Your task to perform on an android device: Toggle the flashlight Image 0: 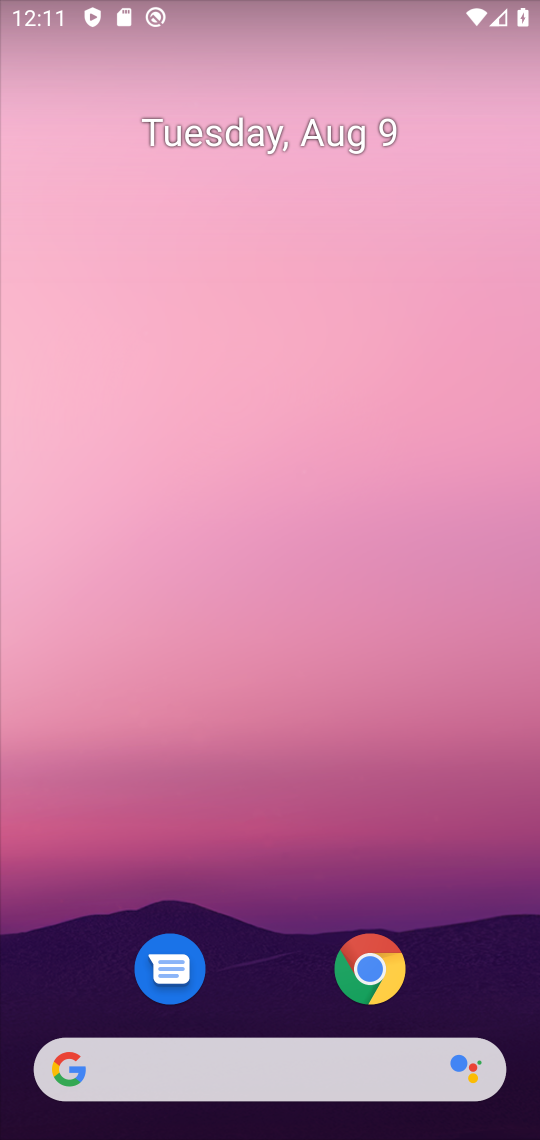
Step 0: drag from (272, 818) to (373, 236)
Your task to perform on an android device: Toggle the flashlight Image 1: 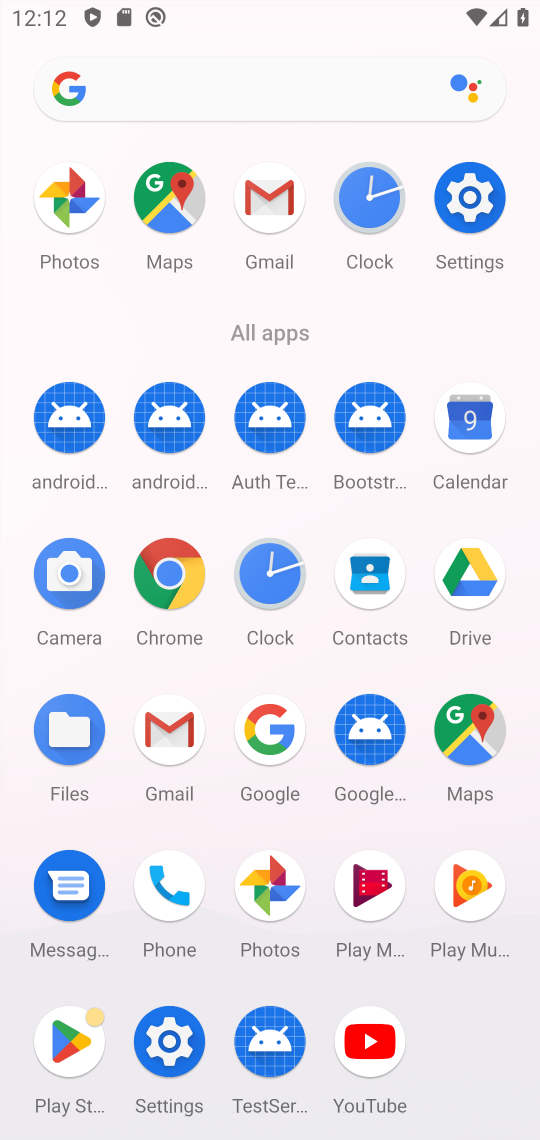
Step 1: click (171, 1016)
Your task to perform on an android device: Toggle the flashlight Image 2: 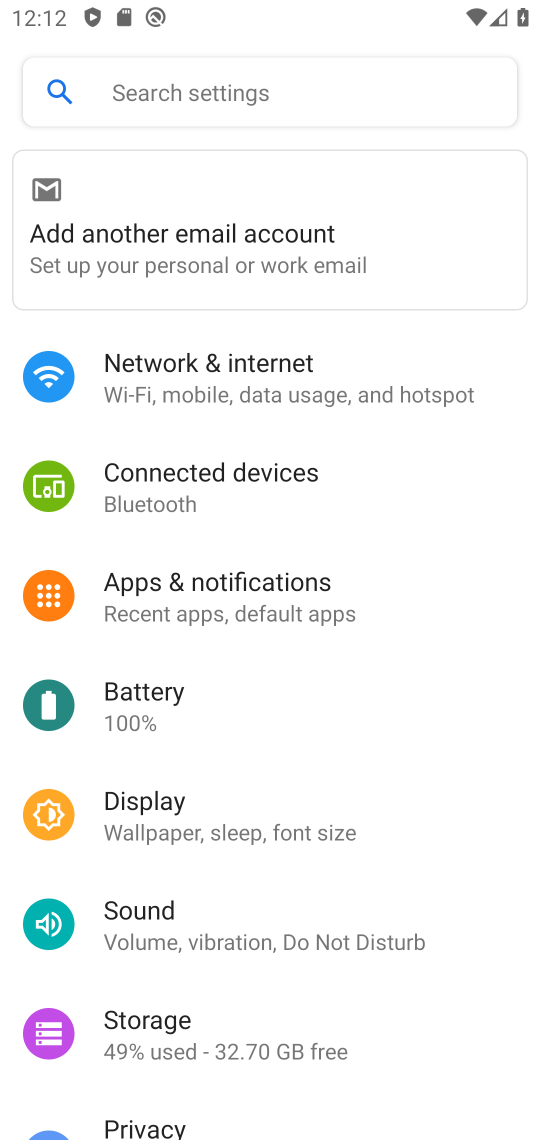
Step 2: click (174, 99)
Your task to perform on an android device: Toggle the flashlight Image 3: 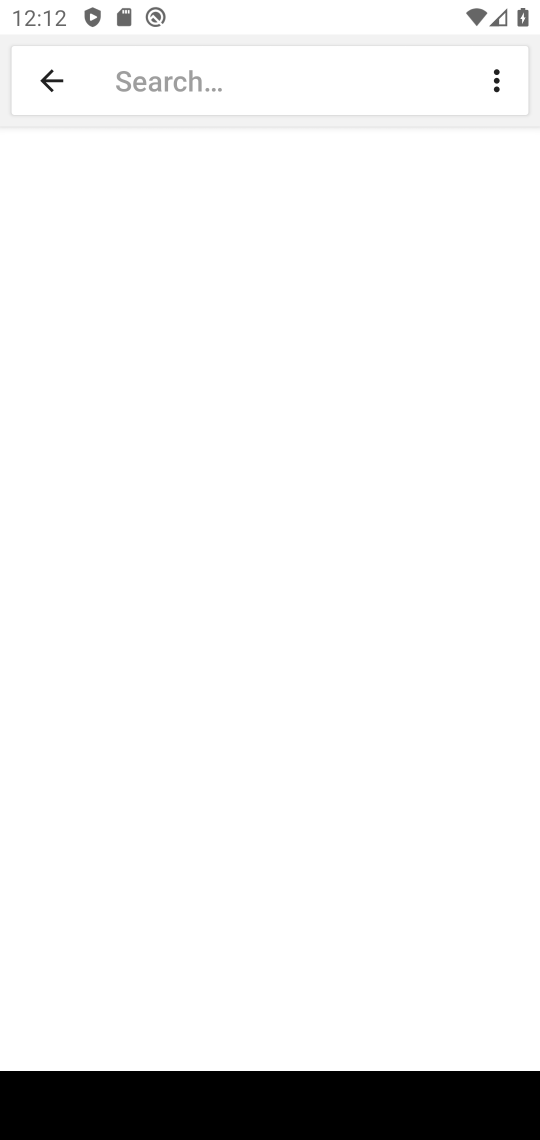
Step 3: type "flashlight"
Your task to perform on an android device: Toggle the flashlight Image 4: 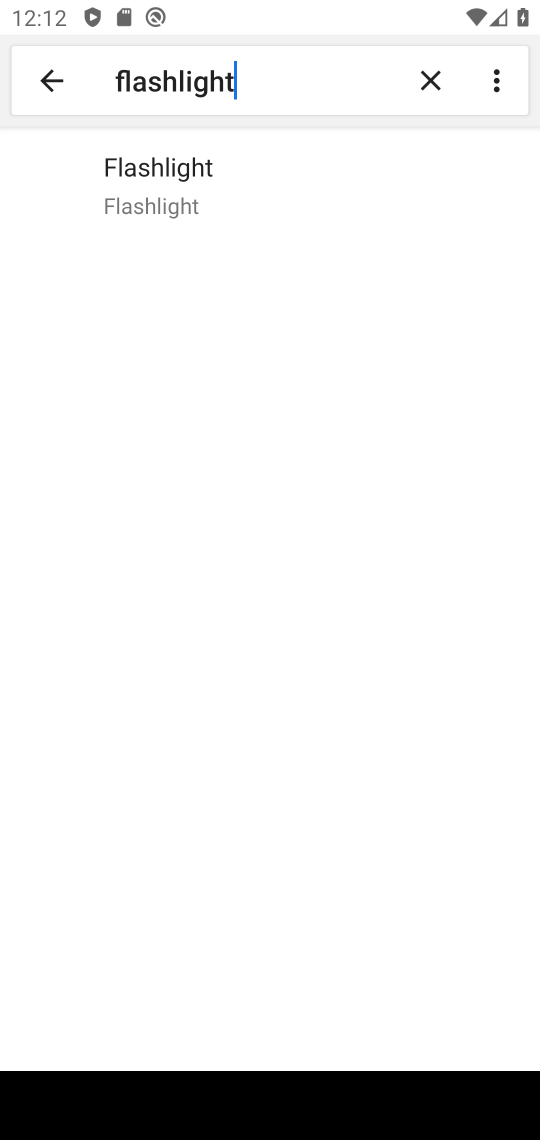
Step 4: click (172, 186)
Your task to perform on an android device: Toggle the flashlight Image 5: 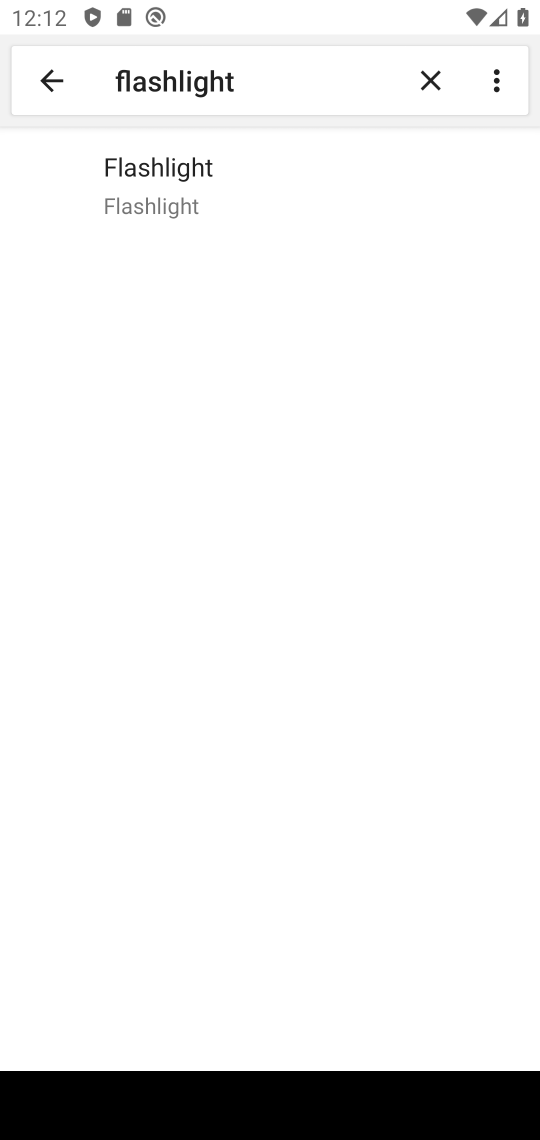
Step 5: click (189, 183)
Your task to perform on an android device: Toggle the flashlight Image 6: 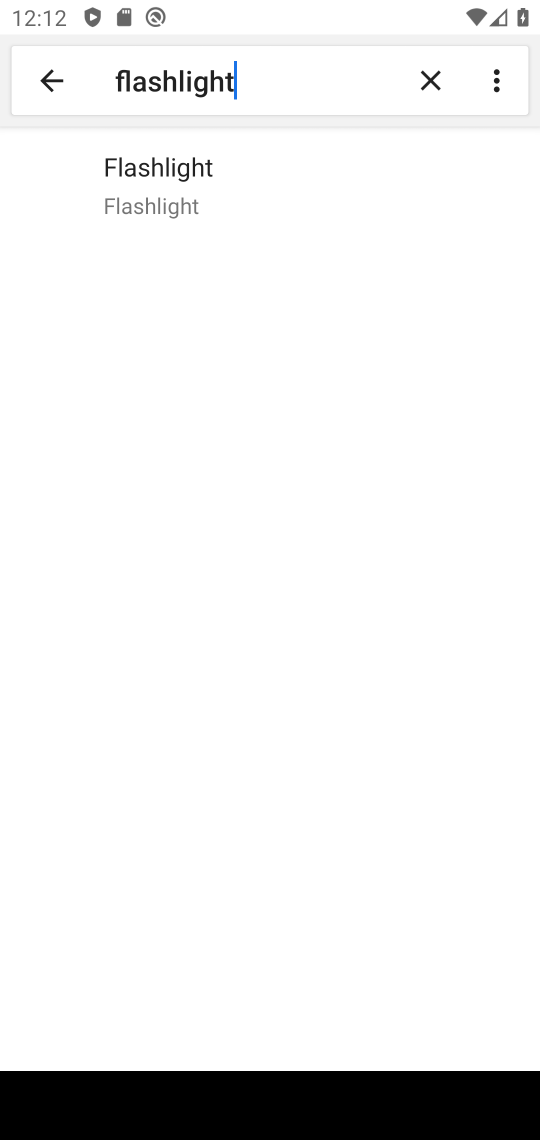
Step 6: click (190, 181)
Your task to perform on an android device: Toggle the flashlight Image 7: 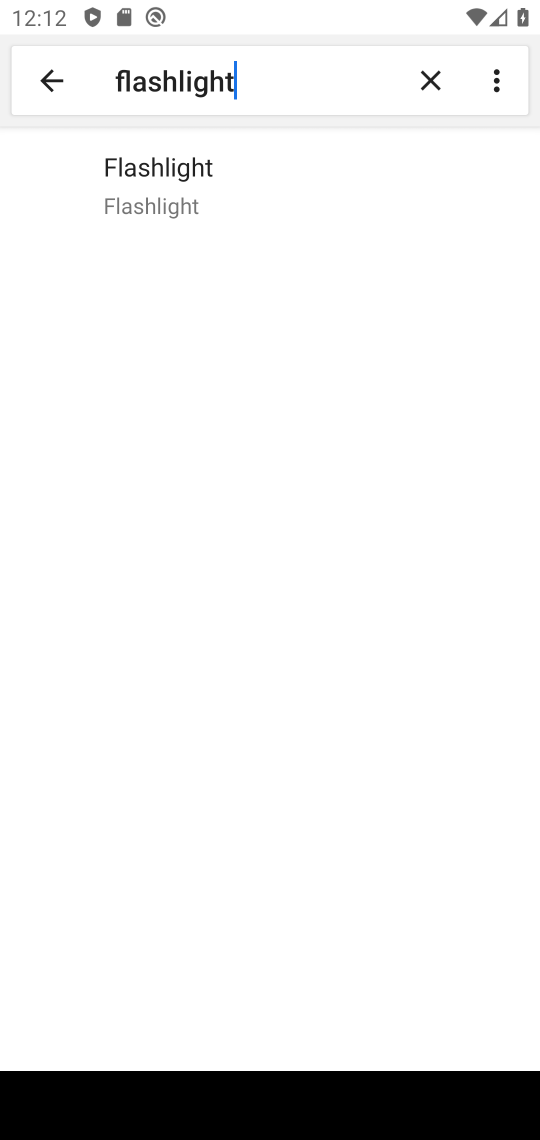
Step 7: task complete